Your task to perform on an android device: What's the weather? Image 0: 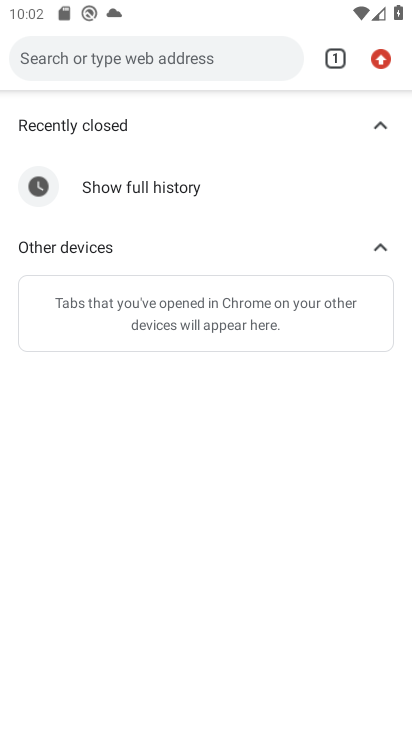
Step 0: press home button
Your task to perform on an android device: What's the weather? Image 1: 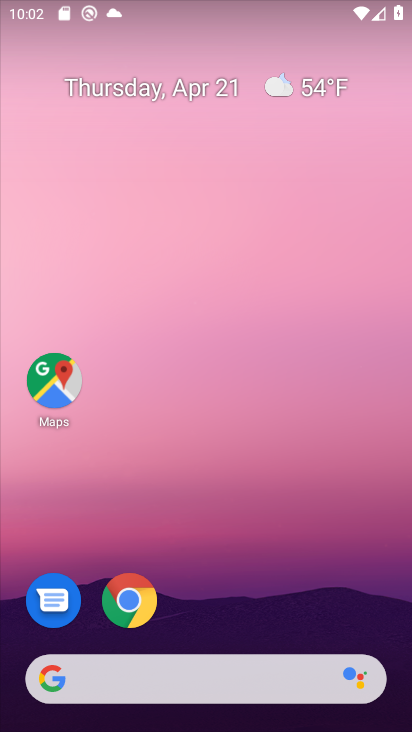
Step 1: drag from (250, 535) to (247, 675)
Your task to perform on an android device: What's the weather? Image 2: 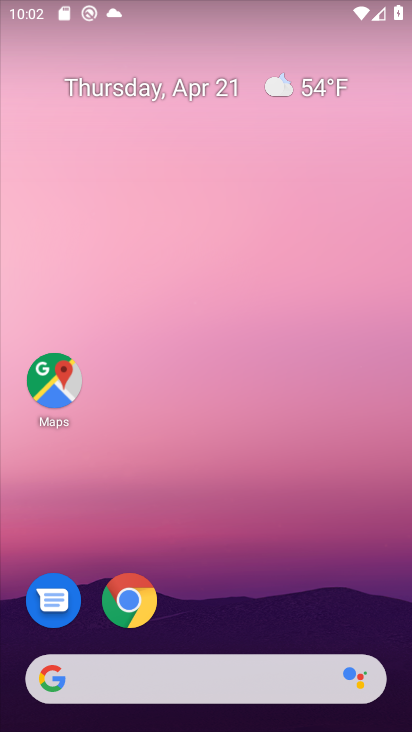
Step 2: click (314, 86)
Your task to perform on an android device: What's the weather? Image 3: 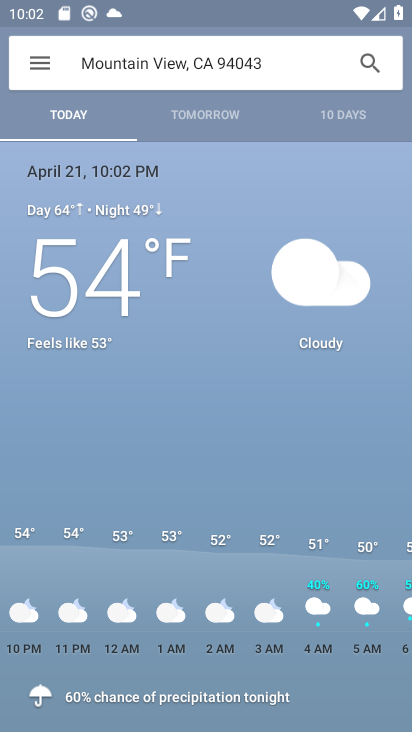
Step 3: task complete